Your task to perform on an android device: Go to notification settings Image 0: 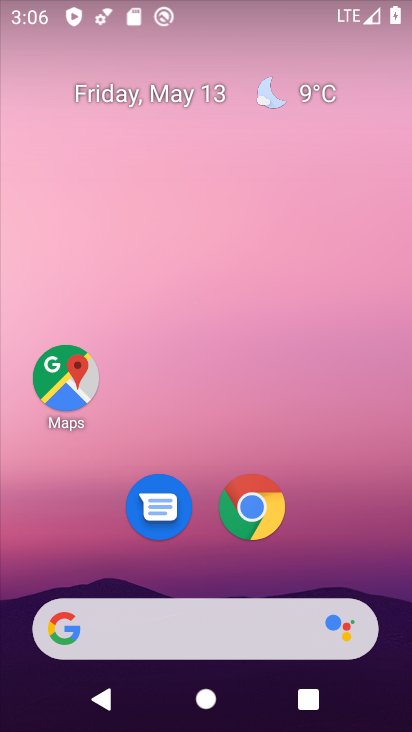
Step 0: drag from (240, 706) to (235, 54)
Your task to perform on an android device: Go to notification settings Image 1: 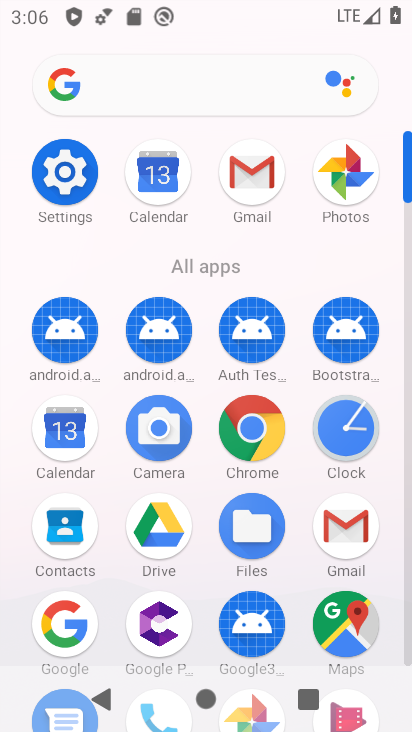
Step 1: click (64, 178)
Your task to perform on an android device: Go to notification settings Image 2: 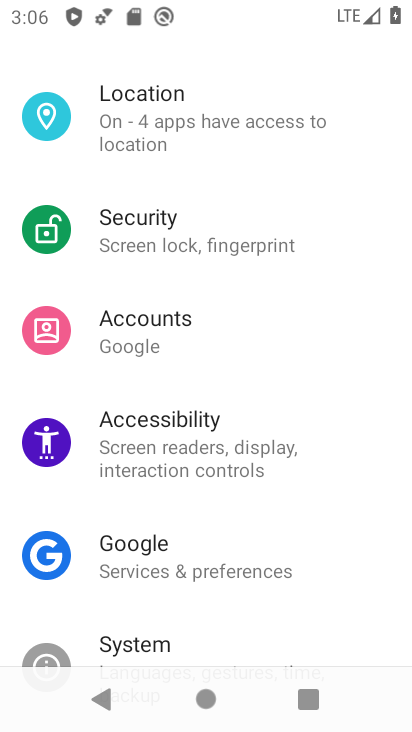
Step 2: task complete